Your task to perform on an android device: See recent photos Image 0: 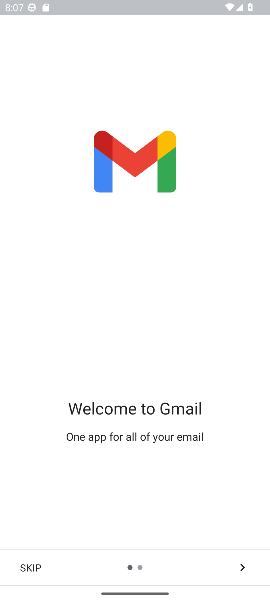
Step 0: press home button
Your task to perform on an android device: See recent photos Image 1: 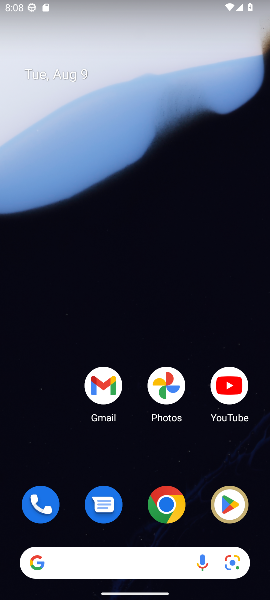
Step 1: click (168, 378)
Your task to perform on an android device: See recent photos Image 2: 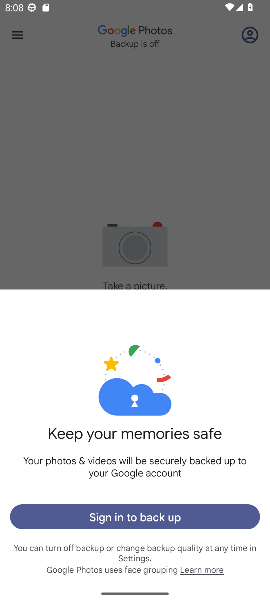
Step 2: click (139, 516)
Your task to perform on an android device: See recent photos Image 3: 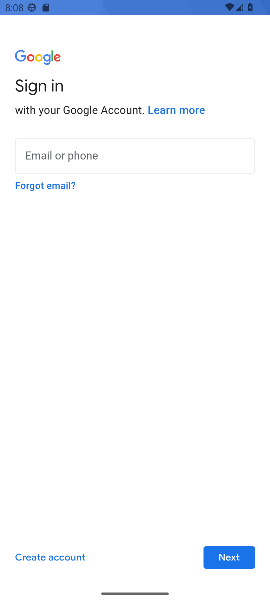
Step 3: task complete